Your task to perform on an android device: Do I have any events this weekend? Image 0: 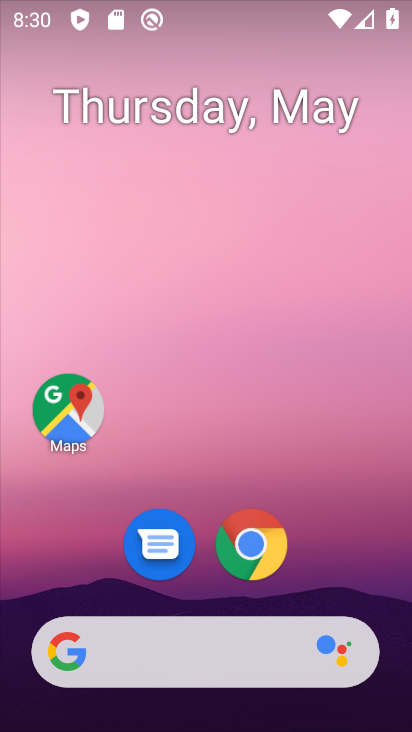
Step 0: drag from (328, 569) to (299, 64)
Your task to perform on an android device: Do I have any events this weekend? Image 1: 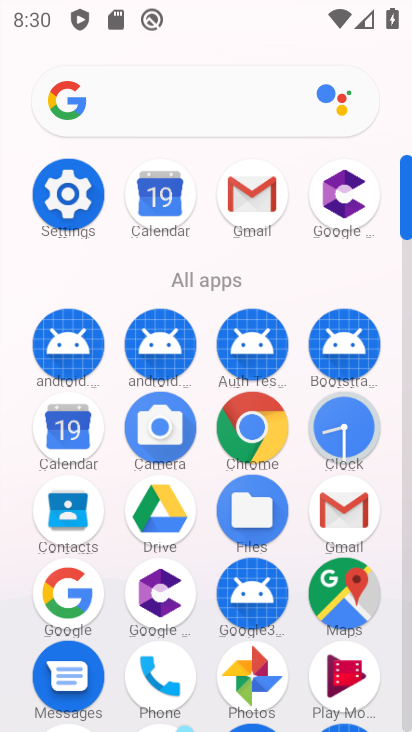
Step 1: click (157, 203)
Your task to perform on an android device: Do I have any events this weekend? Image 2: 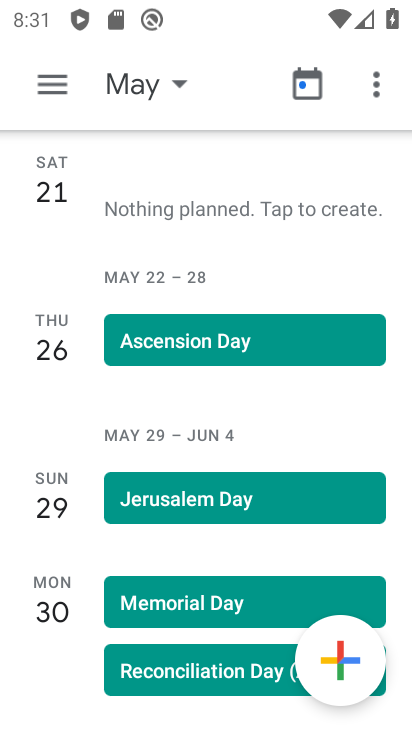
Step 2: click (136, 92)
Your task to perform on an android device: Do I have any events this weekend? Image 3: 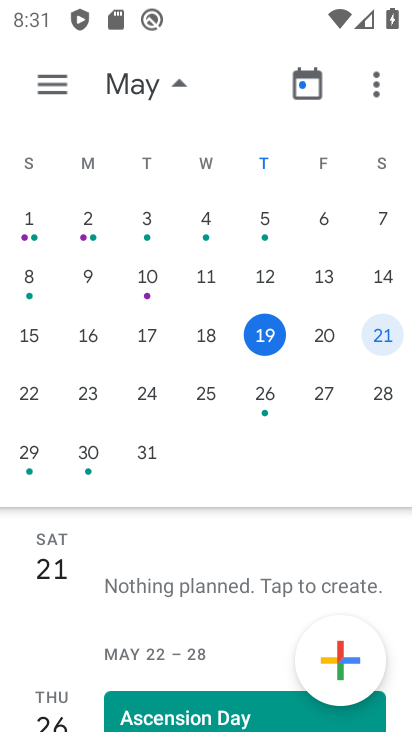
Step 3: click (356, 332)
Your task to perform on an android device: Do I have any events this weekend? Image 4: 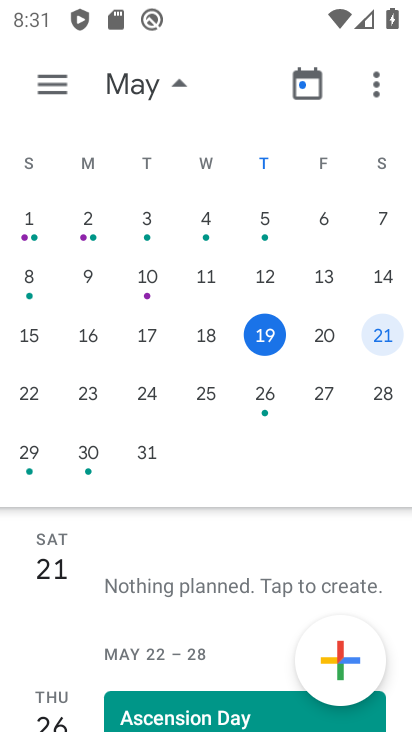
Step 4: click (389, 329)
Your task to perform on an android device: Do I have any events this weekend? Image 5: 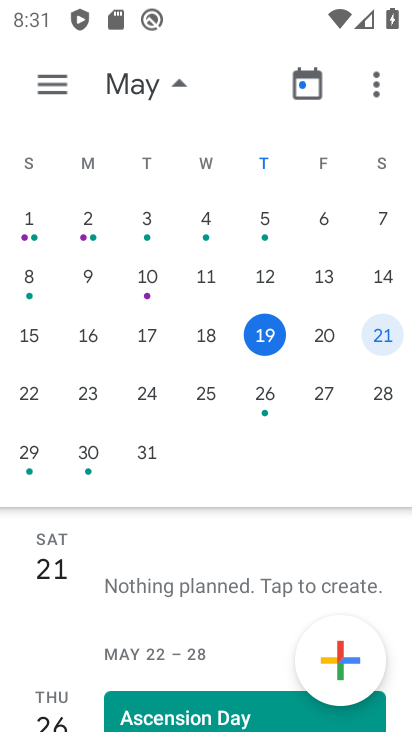
Step 5: click (45, 89)
Your task to perform on an android device: Do I have any events this weekend? Image 6: 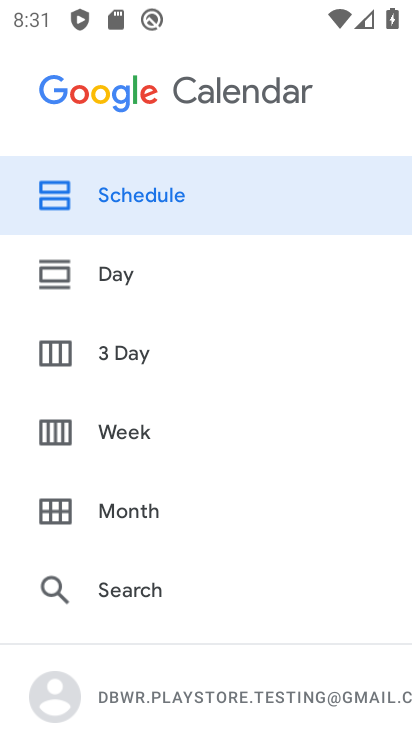
Step 6: click (133, 176)
Your task to perform on an android device: Do I have any events this weekend? Image 7: 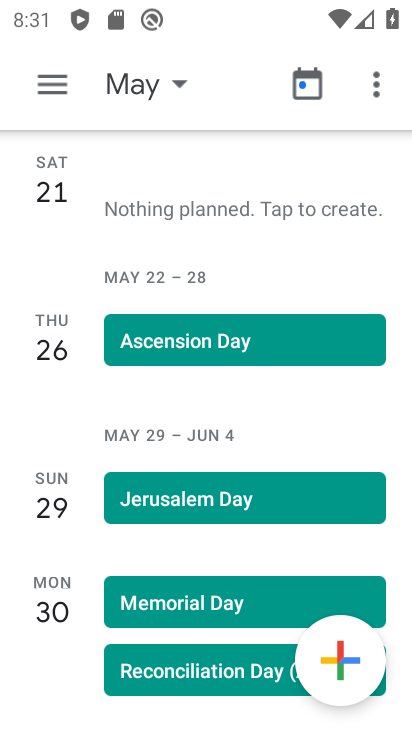
Step 7: task complete